Your task to perform on an android device: move a message to another label in the gmail app Image 0: 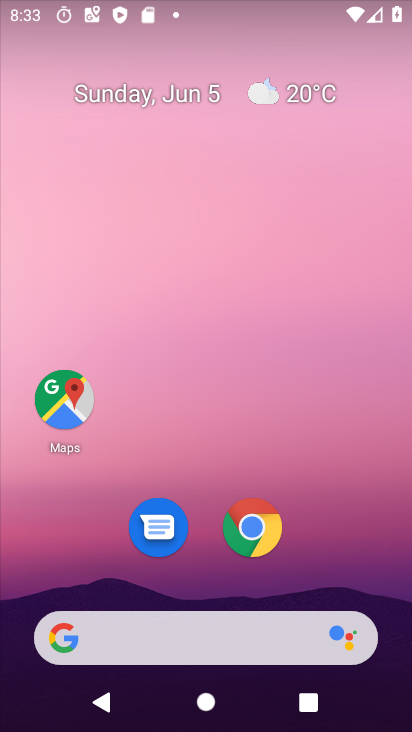
Step 0: drag from (362, 493) to (407, 16)
Your task to perform on an android device: move a message to another label in the gmail app Image 1: 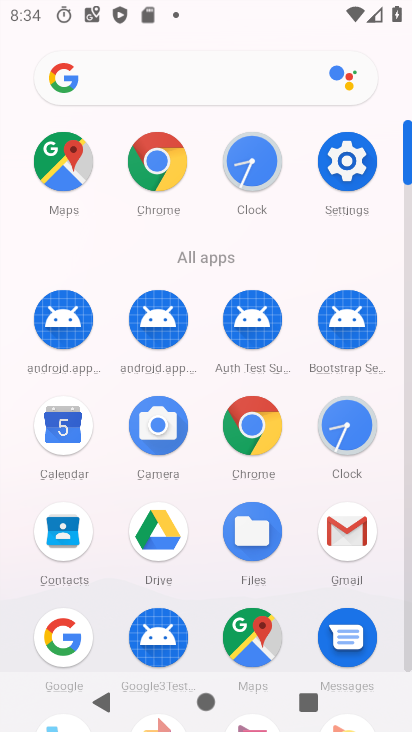
Step 1: click (348, 543)
Your task to perform on an android device: move a message to another label in the gmail app Image 2: 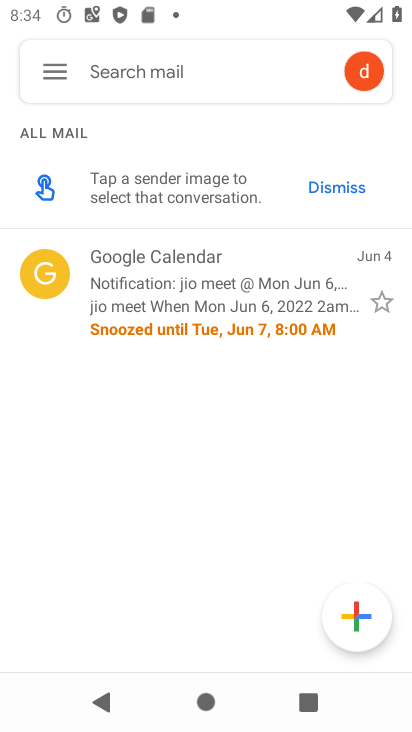
Step 2: click (155, 302)
Your task to perform on an android device: move a message to another label in the gmail app Image 3: 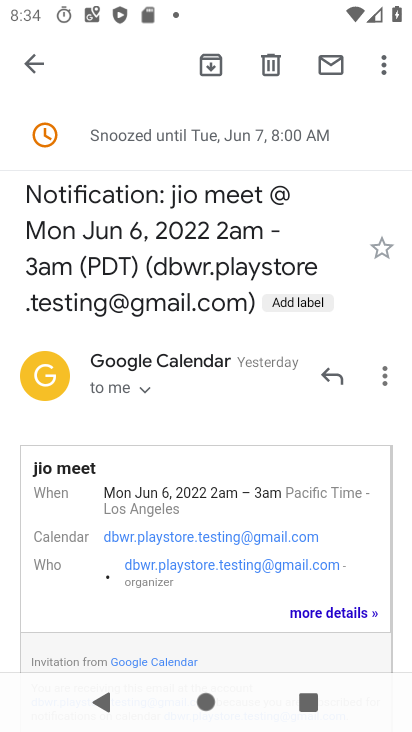
Step 3: click (401, 398)
Your task to perform on an android device: move a message to another label in the gmail app Image 4: 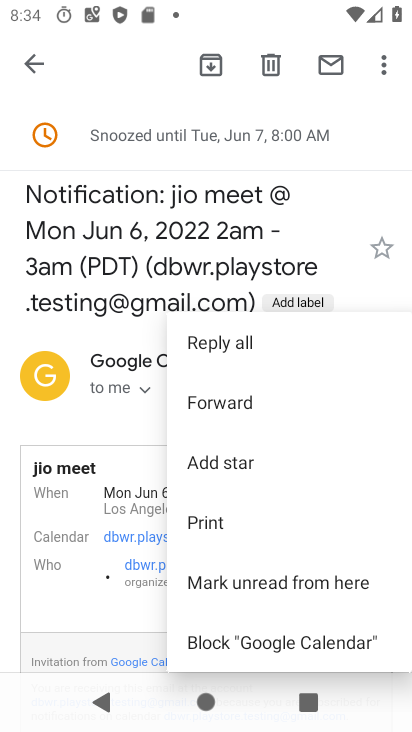
Step 4: click (228, 462)
Your task to perform on an android device: move a message to another label in the gmail app Image 5: 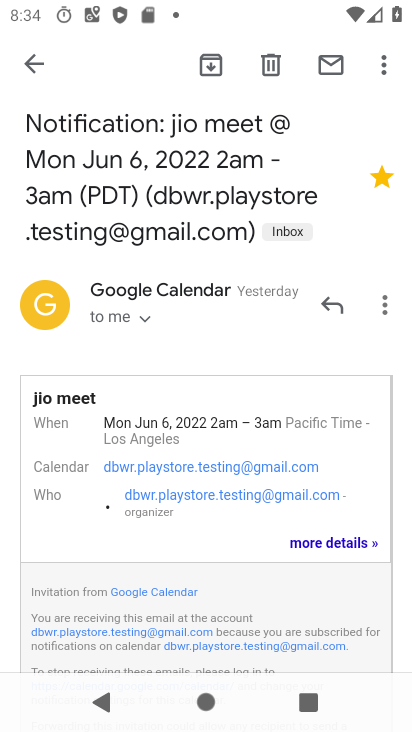
Step 5: task complete